Your task to perform on an android device: turn on translation in the chrome app Image 0: 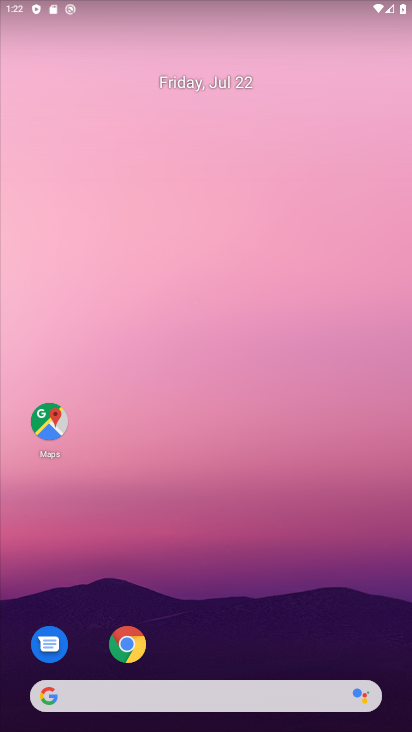
Step 0: drag from (294, 666) to (243, 150)
Your task to perform on an android device: turn on translation in the chrome app Image 1: 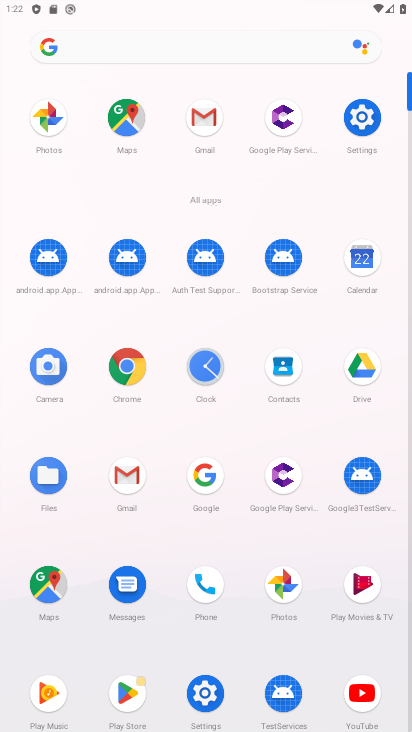
Step 1: click (197, 119)
Your task to perform on an android device: turn on translation in the chrome app Image 2: 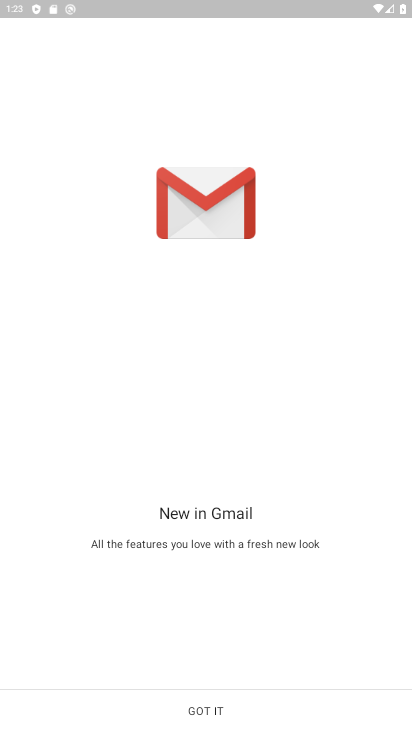
Step 2: click (228, 714)
Your task to perform on an android device: turn on translation in the chrome app Image 3: 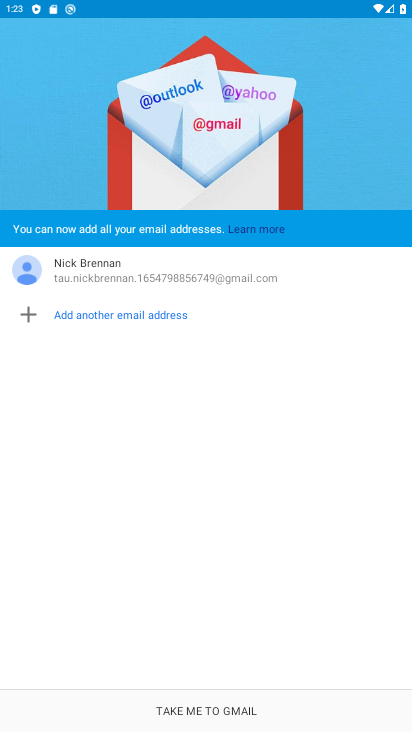
Step 3: press home button
Your task to perform on an android device: turn on translation in the chrome app Image 4: 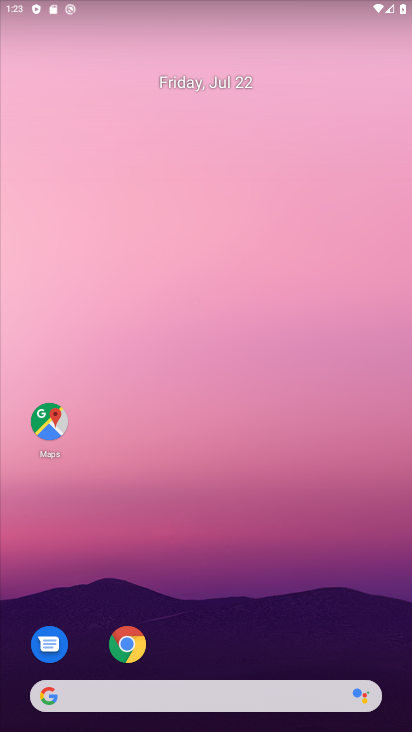
Step 4: drag from (268, 650) to (285, 231)
Your task to perform on an android device: turn on translation in the chrome app Image 5: 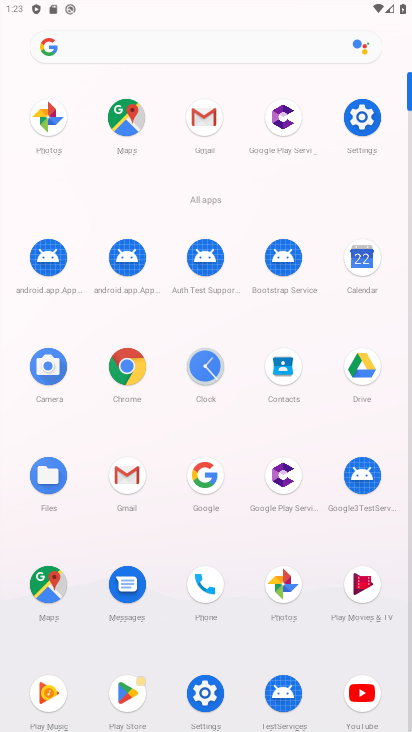
Step 5: click (121, 359)
Your task to perform on an android device: turn on translation in the chrome app Image 6: 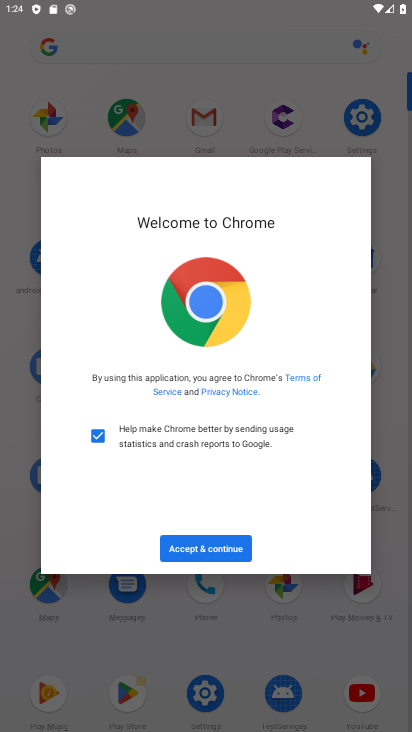
Step 6: click (210, 540)
Your task to perform on an android device: turn on translation in the chrome app Image 7: 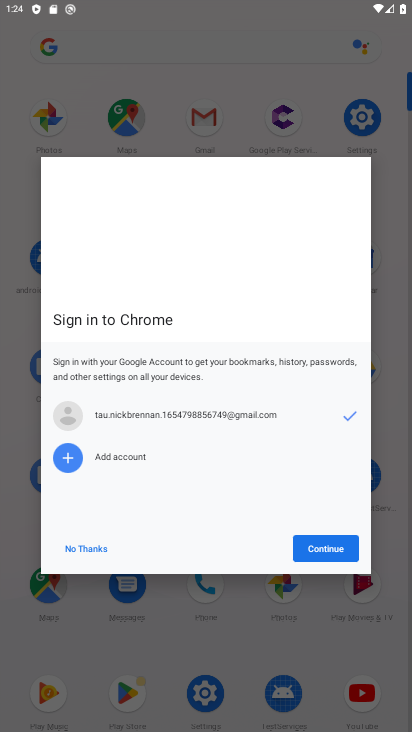
Step 7: click (334, 542)
Your task to perform on an android device: turn on translation in the chrome app Image 8: 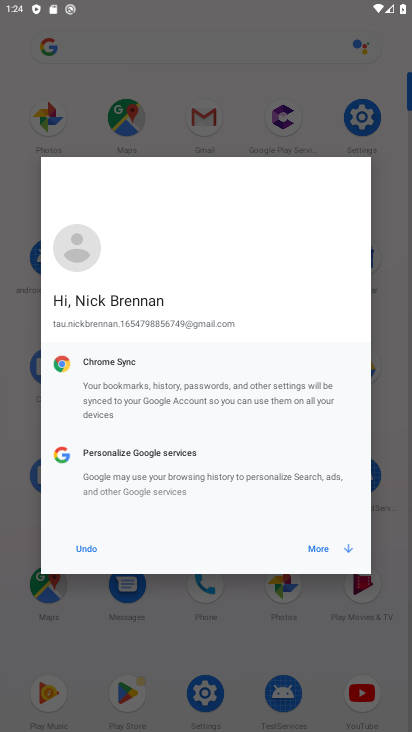
Step 8: click (334, 542)
Your task to perform on an android device: turn on translation in the chrome app Image 9: 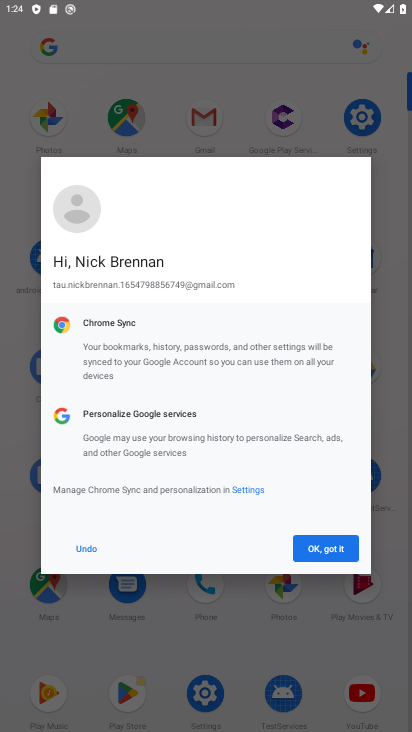
Step 9: click (305, 544)
Your task to perform on an android device: turn on translation in the chrome app Image 10: 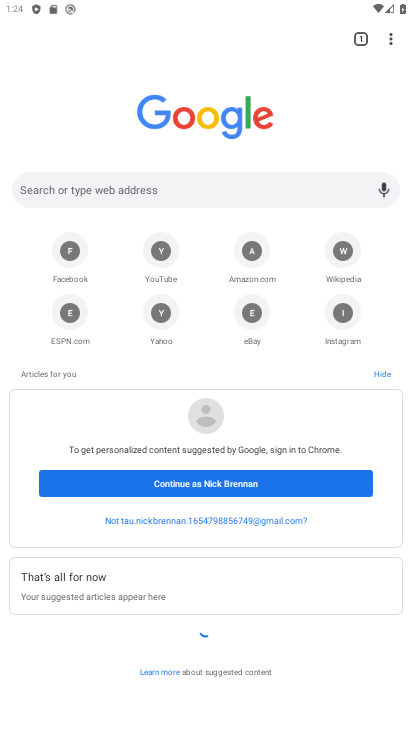
Step 10: click (395, 34)
Your task to perform on an android device: turn on translation in the chrome app Image 11: 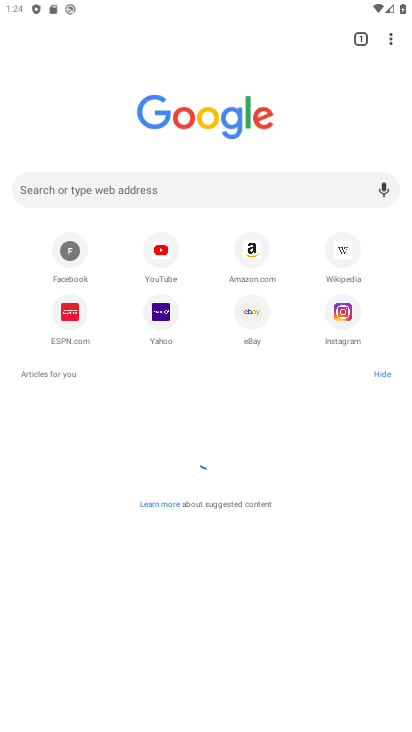
Step 11: click (395, 34)
Your task to perform on an android device: turn on translation in the chrome app Image 12: 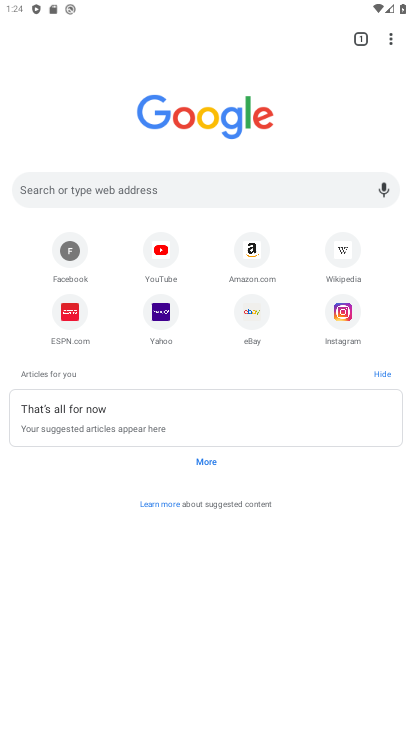
Step 12: click (393, 38)
Your task to perform on an android device: turn on translation in the chrome app Image 13: 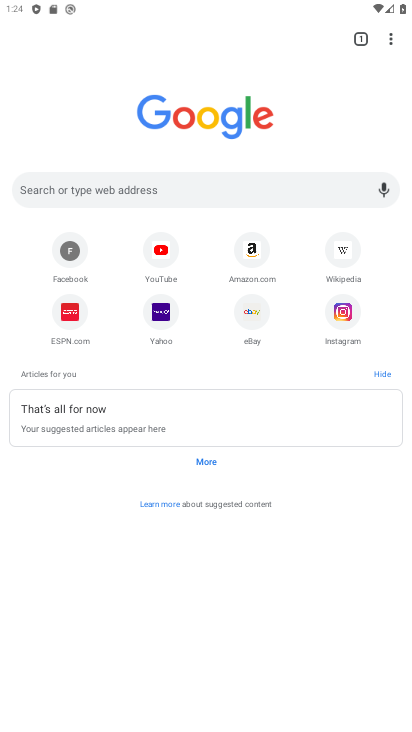
Step 13: click (400, 32)
Your task to perform on an android device: turn on translation in the chrome app Image 14: 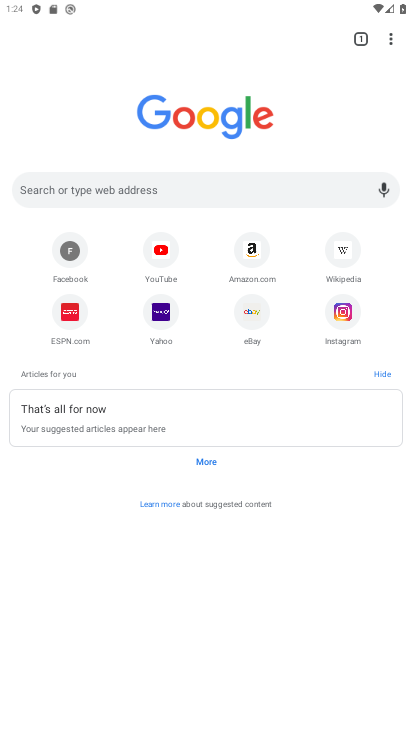
Step 14: click (400, 32)
Your task to perform on an android device: turn on translation in the chrome app Image 15: 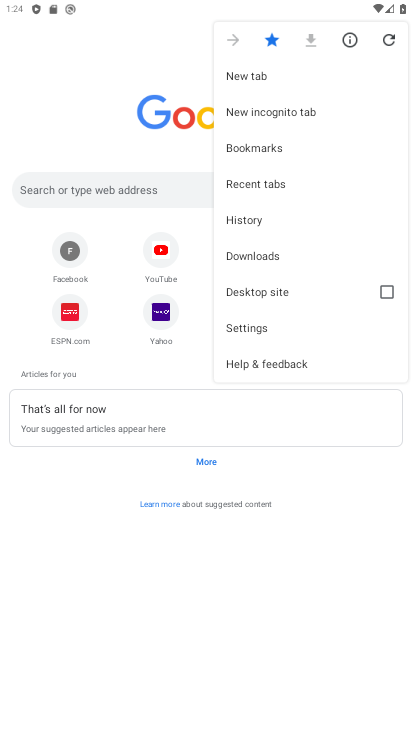
Step 15: click (269, 333)
Your task to perform on an android device: turn on translation in the chrome app Image 16: 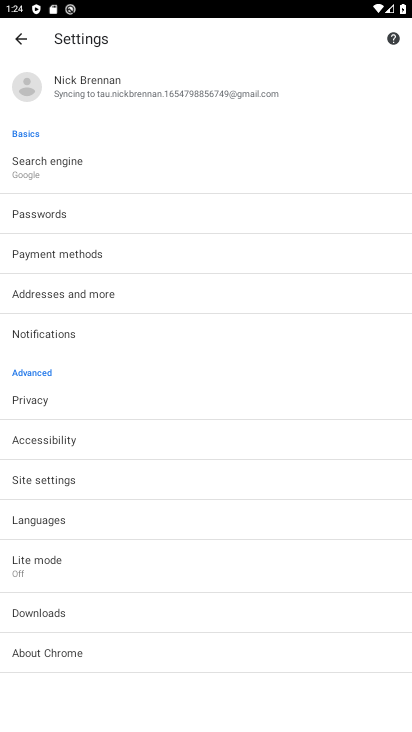
Step 16: click (85, 526)
Your task to perform on an android device: turn on translation in the chrome app Image 17: 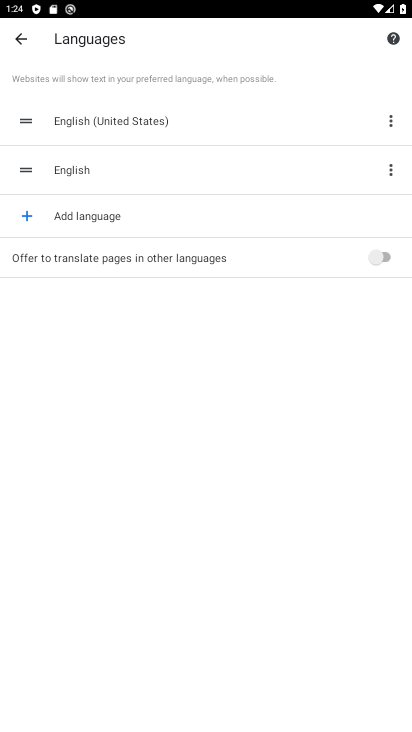
Step 17: click (379, 254)
Your task to perform on an android device: turn on translation in the chrome app Image 18: 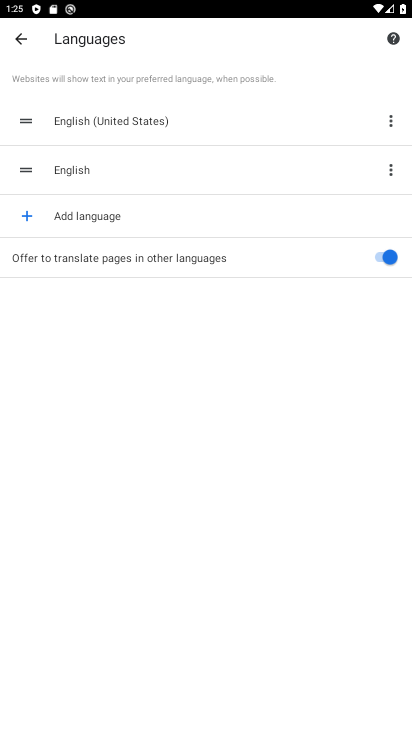
Step 18: task complete